Your task to perform on an android device: turn off location Image 0: 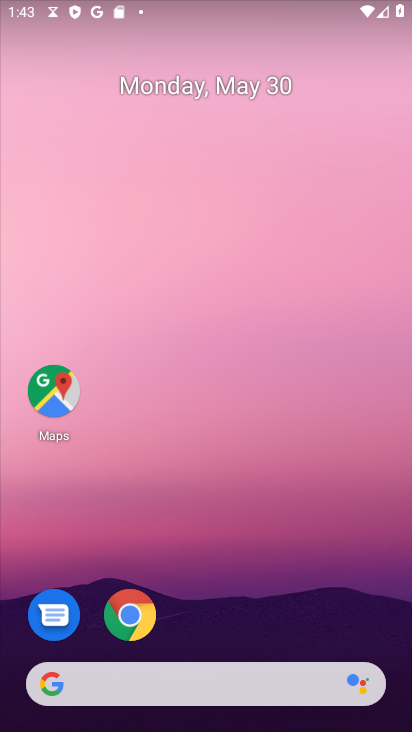
Step 0: drag from (279, 439) to (295, 172)
Your task to perform on an android device: turn off location Image 1: 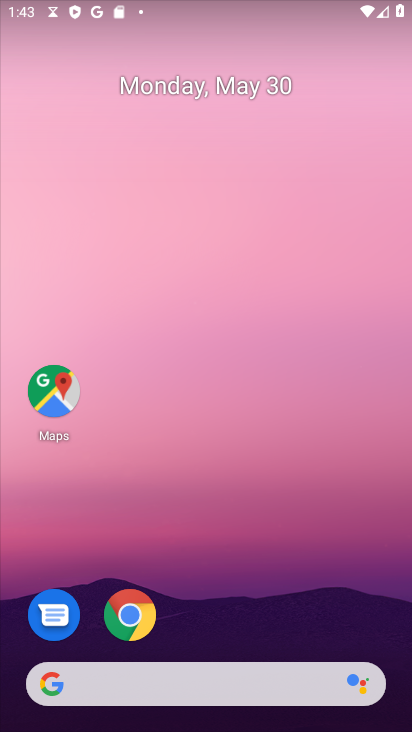
Step 1: drag from (358, 551) to (407, 145)
Your task to perform on an android device: turn off location Image 2: 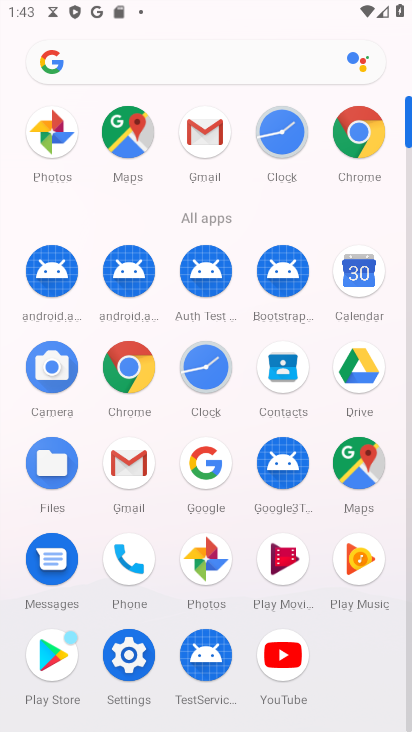
Step 2: click (144, 655)
Your task to perform on an android device: turn off location Image 3: 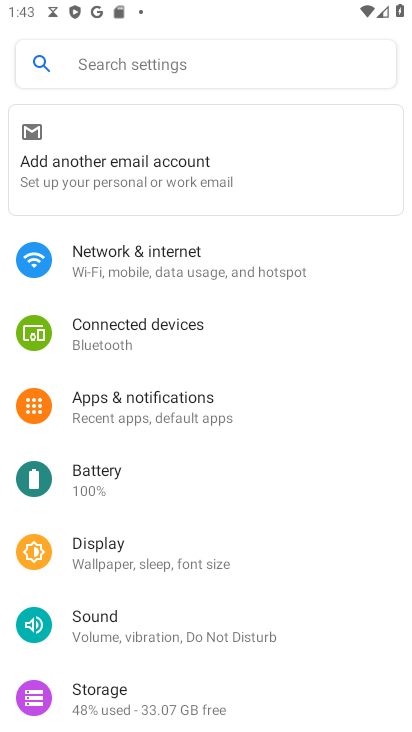
Step 3: drag from (148, 628) to (202, 277)
Your task to perform on an android device: turn off location Image 4: 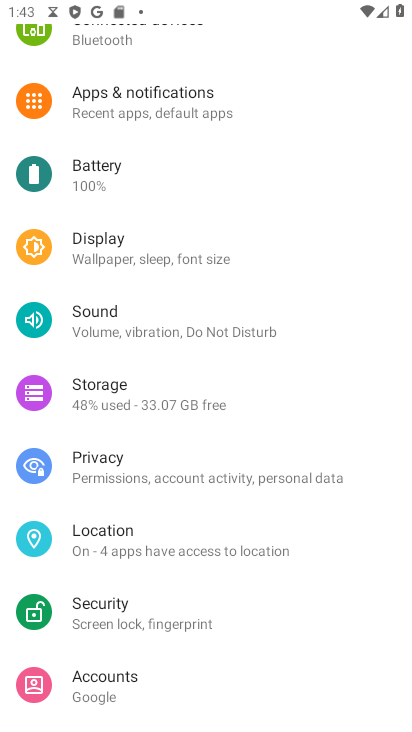
Step 4: click (113, 529)
Your task to perform on an android device: turn off location Image 5: 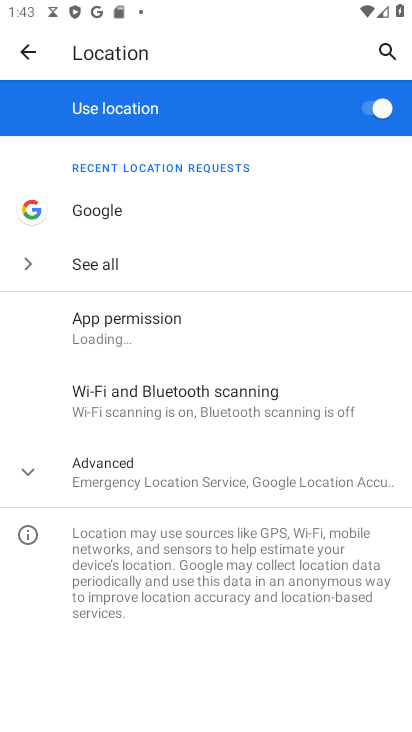
Step 5: click (375, 113)
Your task to perform on an android device: turn off location Image 6: 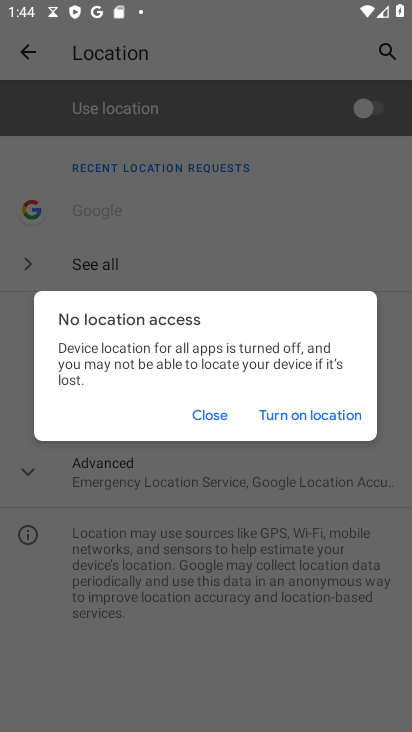
Step 6: task complete